Your task to perform on an android device: change notifications settings Image 0: 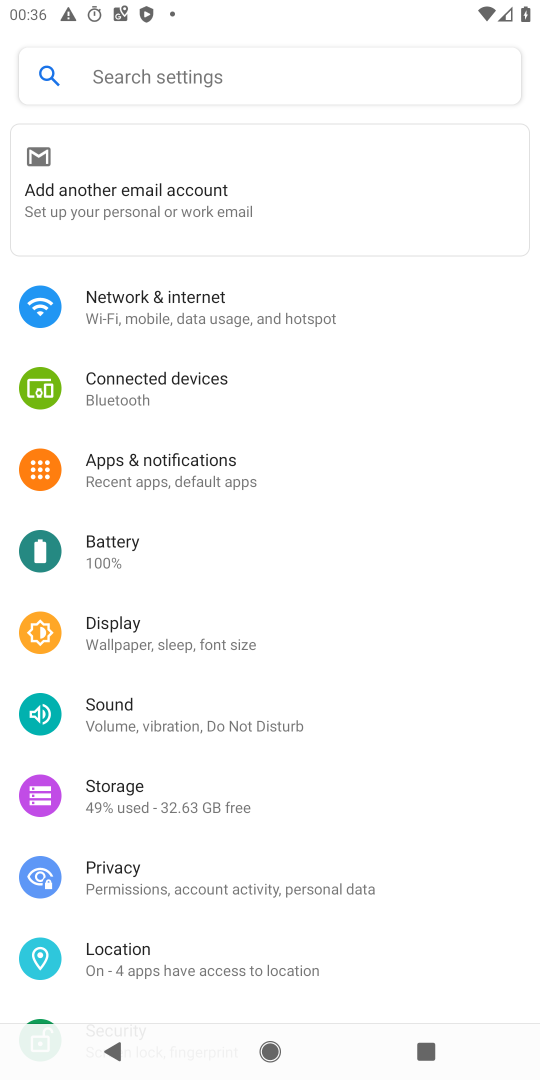
Step 0: click (121, 453)
Your task to perform on an android device: change notifications settings Image 1: 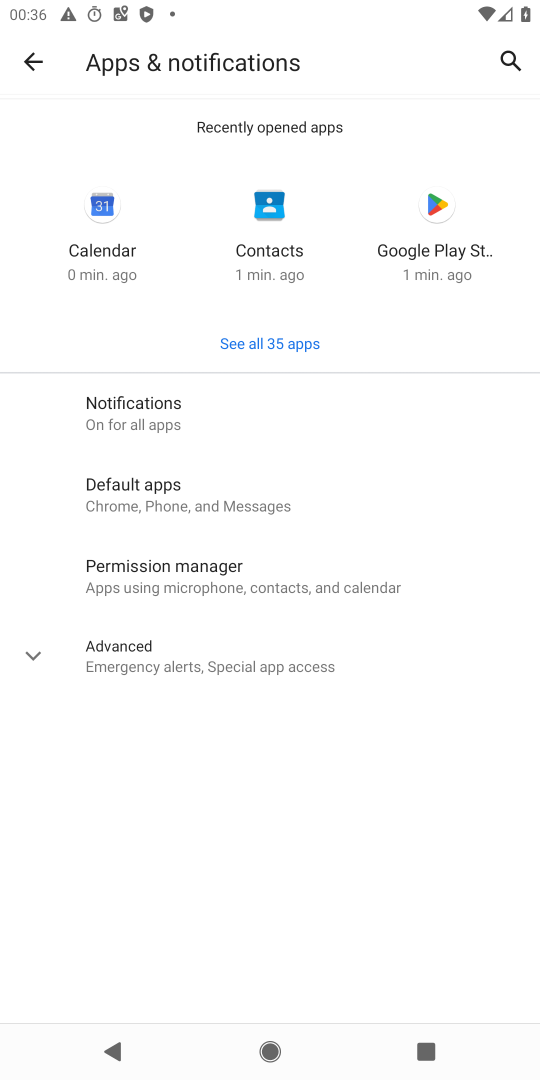
Step 1: click (216, 409)
Your task to perform on an android device: change notifications settings Image 2: 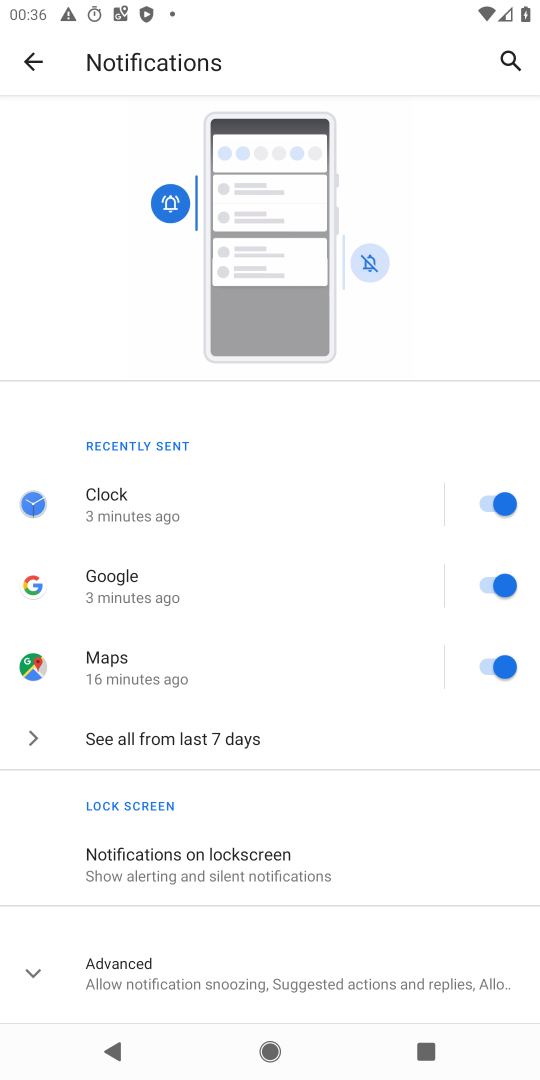
Step 2: click (294, 742)
Your task to perform on an android device: change notifications settings Image 3: 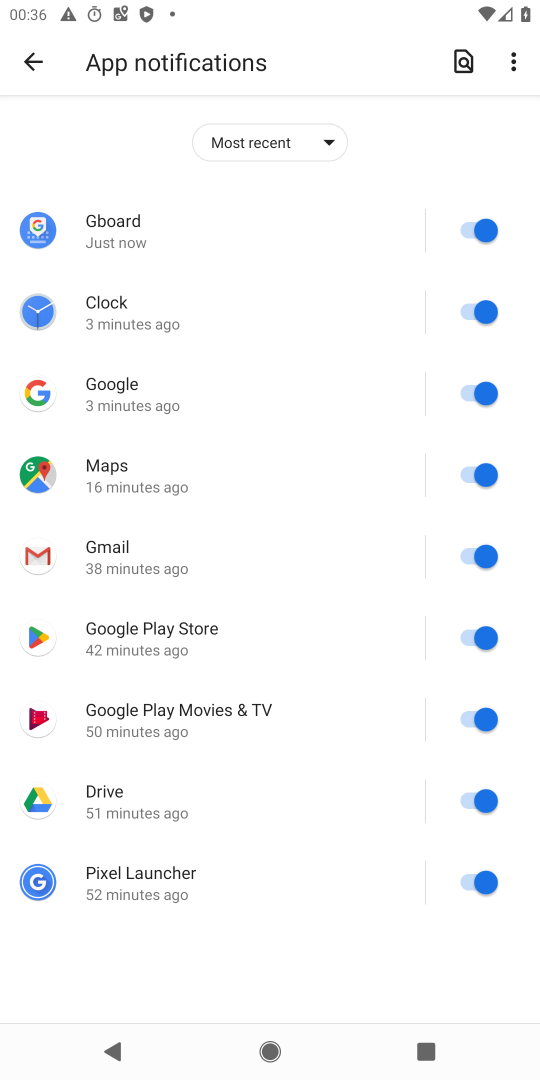
Step 3: click (479, 242)
Your task to perform on an android device: change notifications settings Image 4: 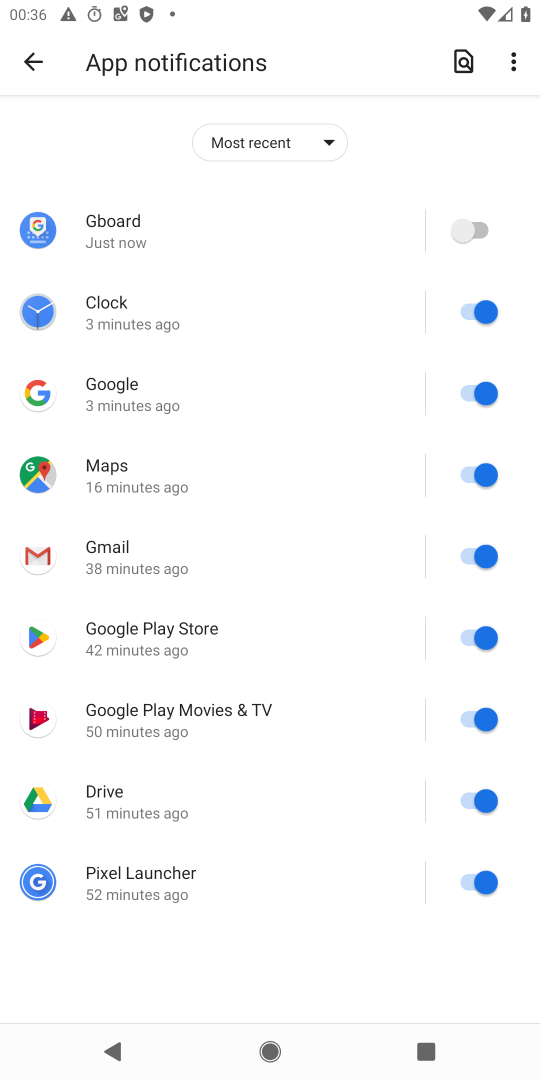
Step 4: click (483, 305)
Your task to perform on an android device: change notifications settings Image 5: 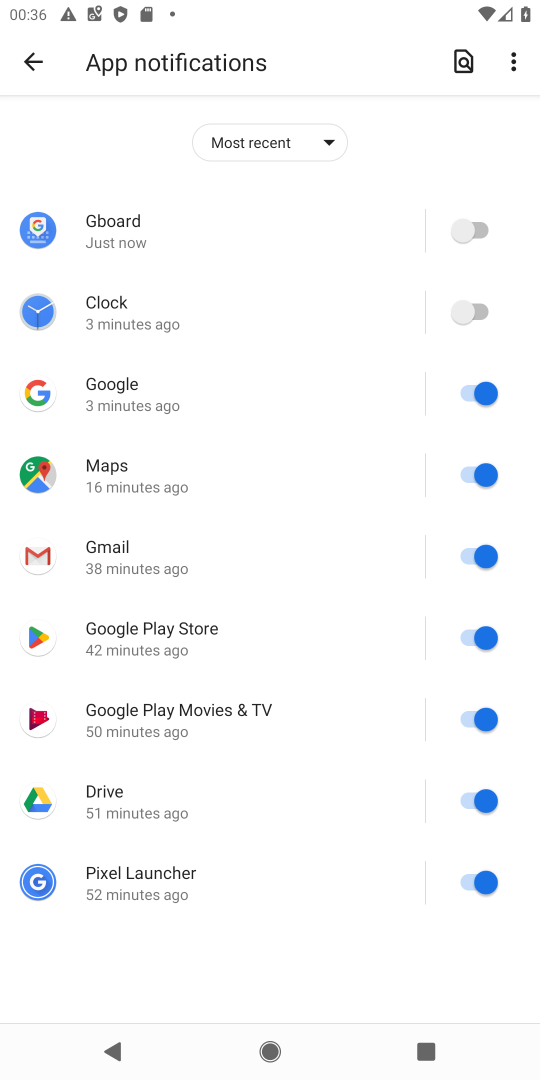
Step 5: click (473, 387)
Your task to perform on an android device: change notifications settings Image 6: 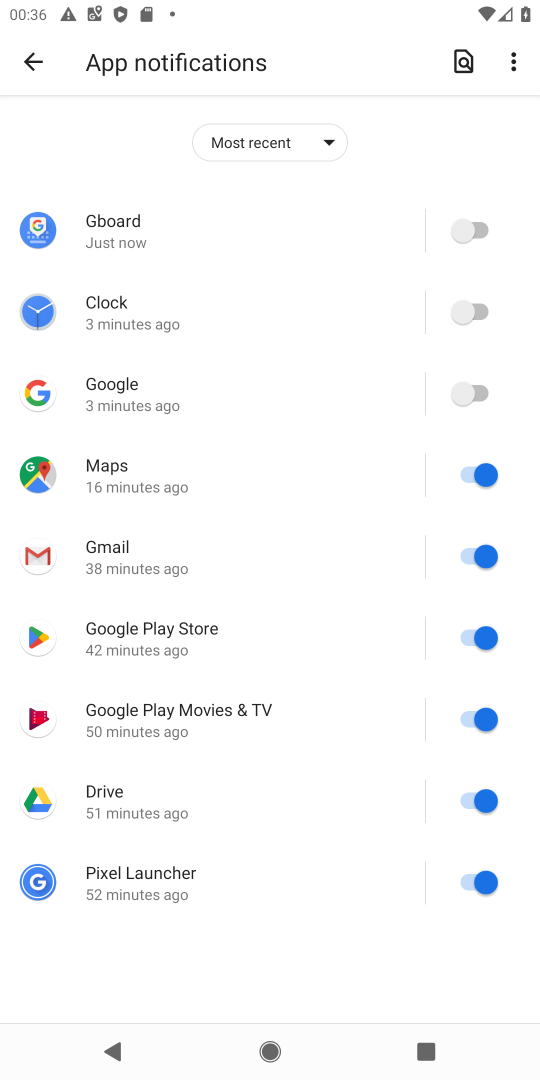
Step 6: click (474, 468)
Your task to perform on an android device: change notifications settings Image 7: 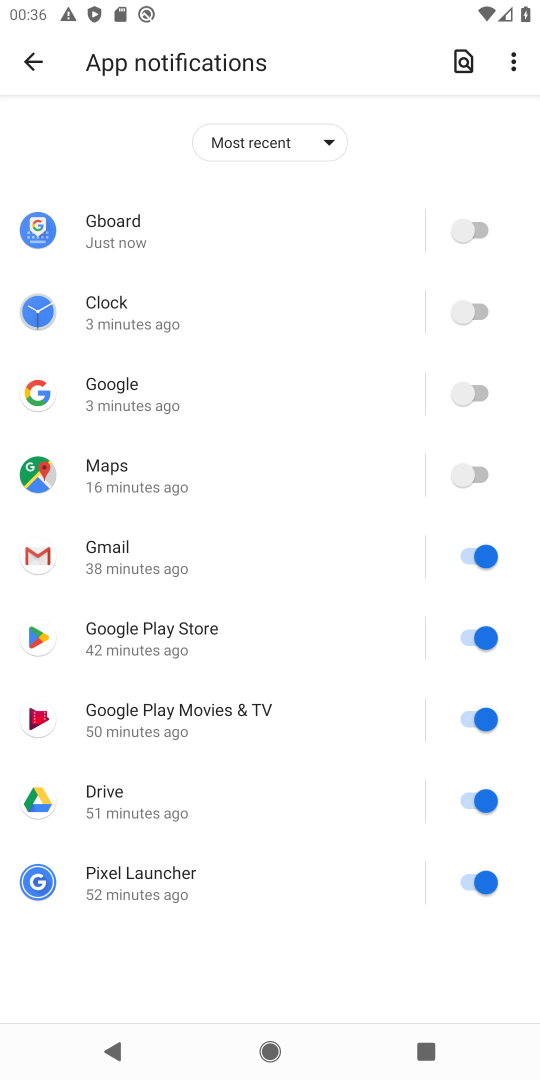
Step 7: click (481, 560)
Your task to perform on an android device: change notifications settings Image 8: 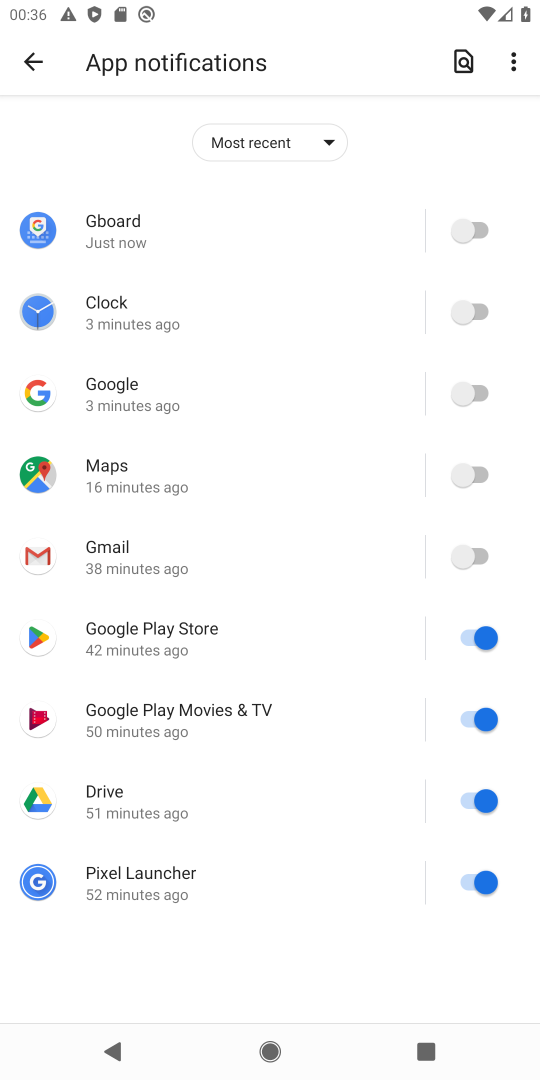
Step 8: click (475, 629)
Your task to perform on an android device: change notifications settings Image 9: 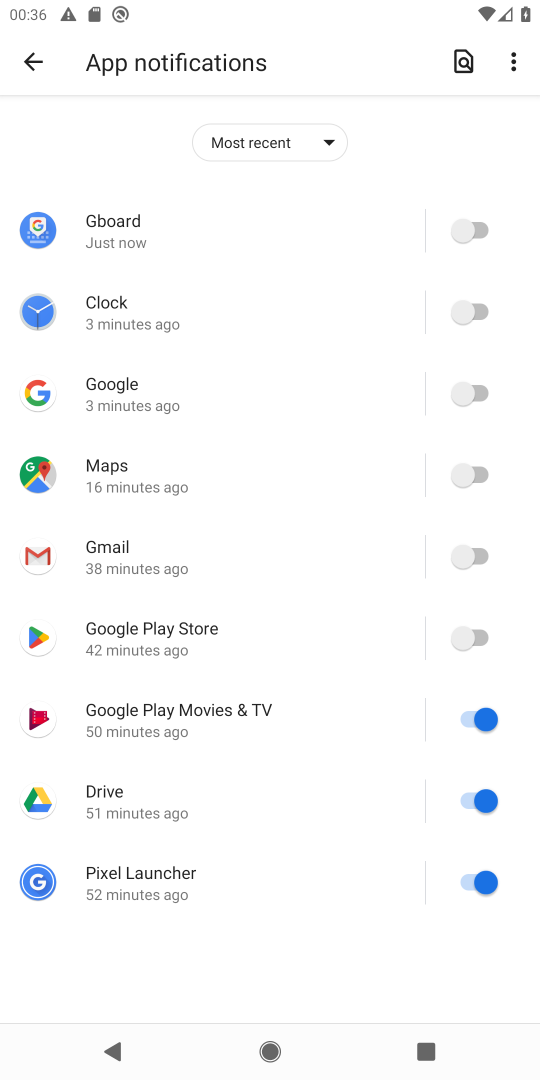
Step 9: click (484, 709)
Your task to perform on an android device: change notifications settings Image 10: 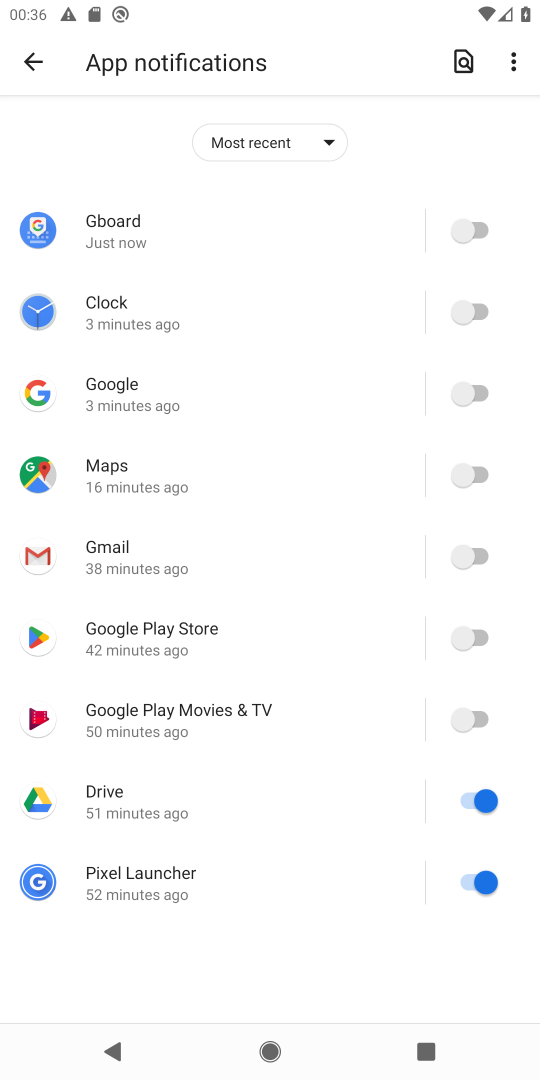
Step 10: click (487, 780)
Your task to perform on an android device: change notifications settings Image 11: 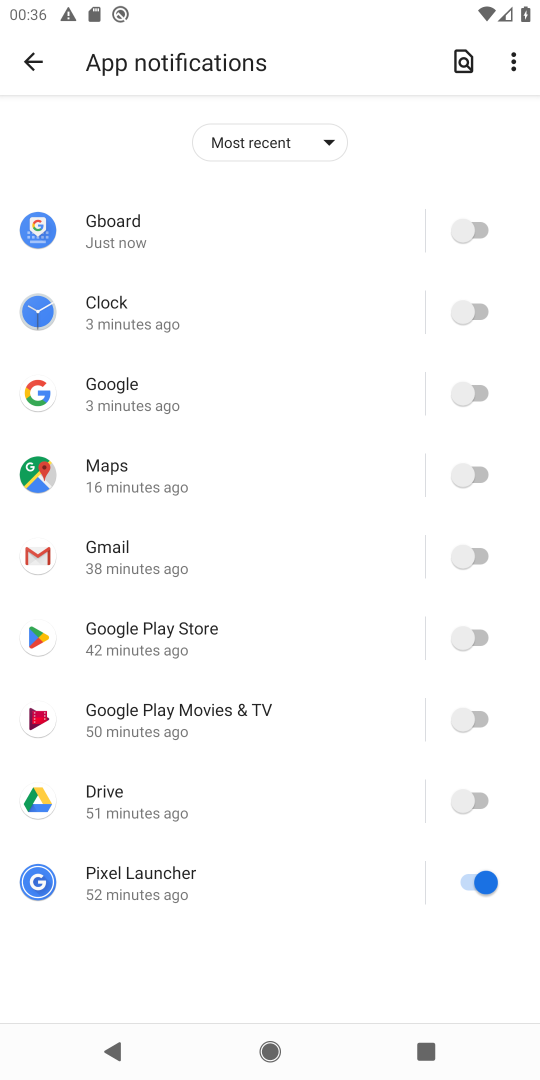
Step 11: click (471, 886)
Your task to perform on an android device: change notifications settings Image 12: 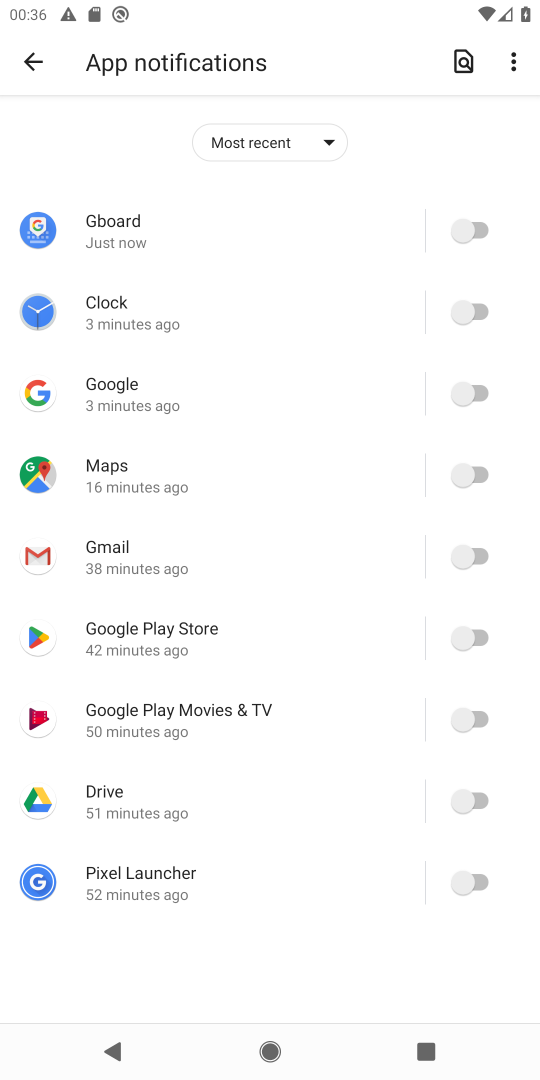
Step 12: click (39, 54)
Your task to perform on an android device: change notifications settings Image 13: 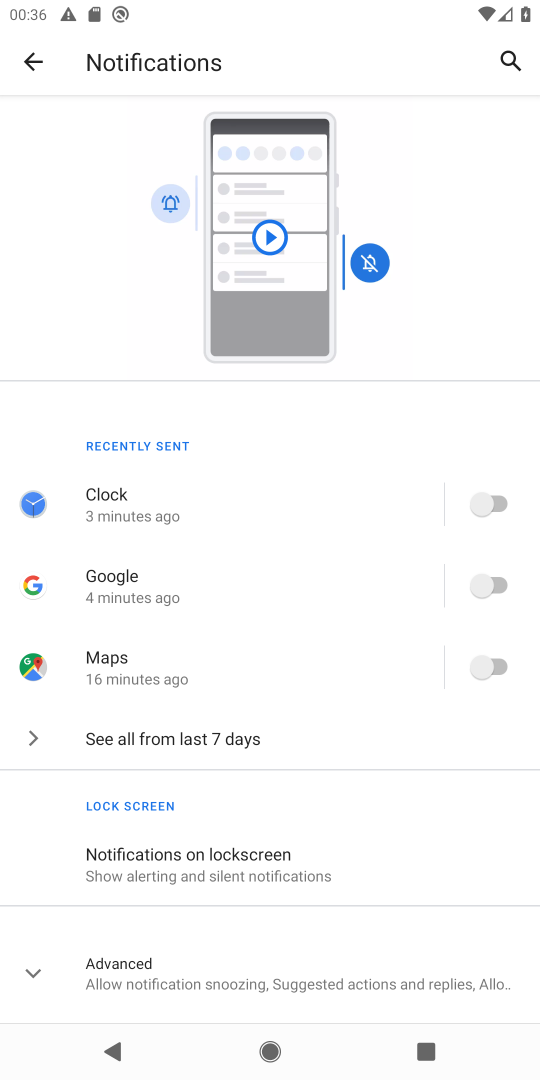
Step 13: click (156, 865)
Your task to perform on an android device: change notifications settings Image 14: 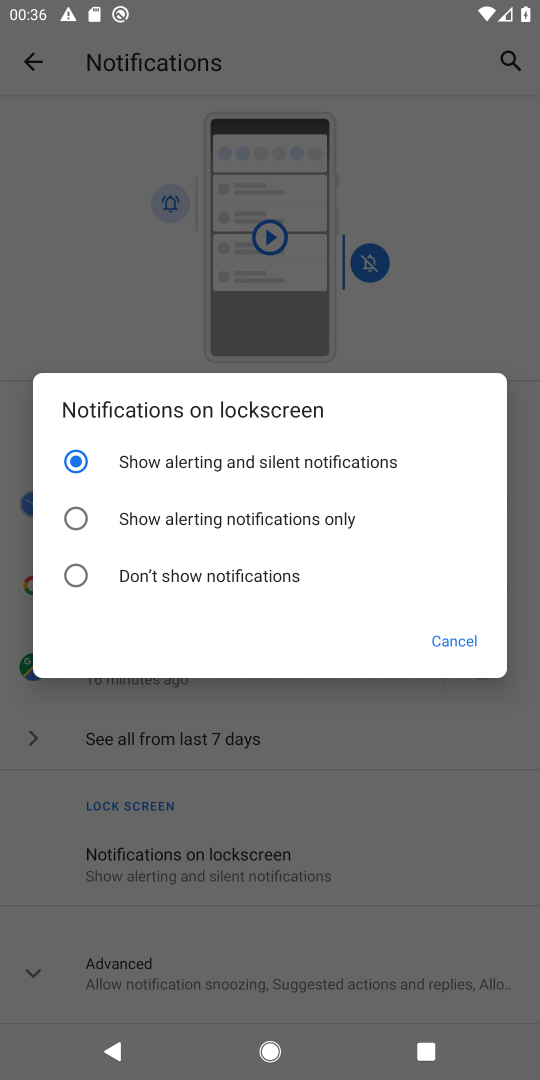
Step 14: click (242, 510)
Your task to perform on an android device: change notifications settings Image 15: 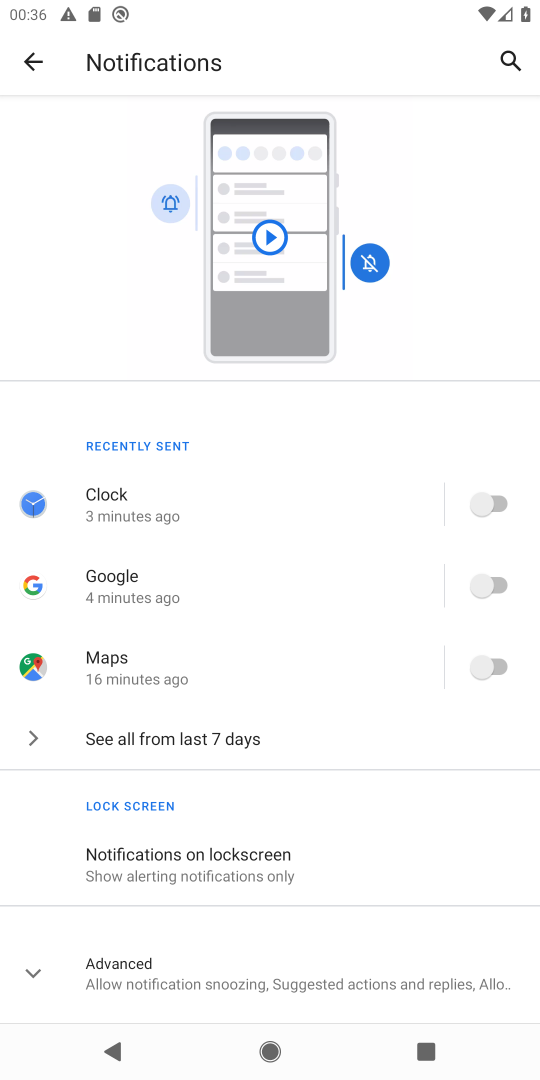
Step 15: click (214, 962)
Your task to perform on an android device: change notifications settings Image 16: 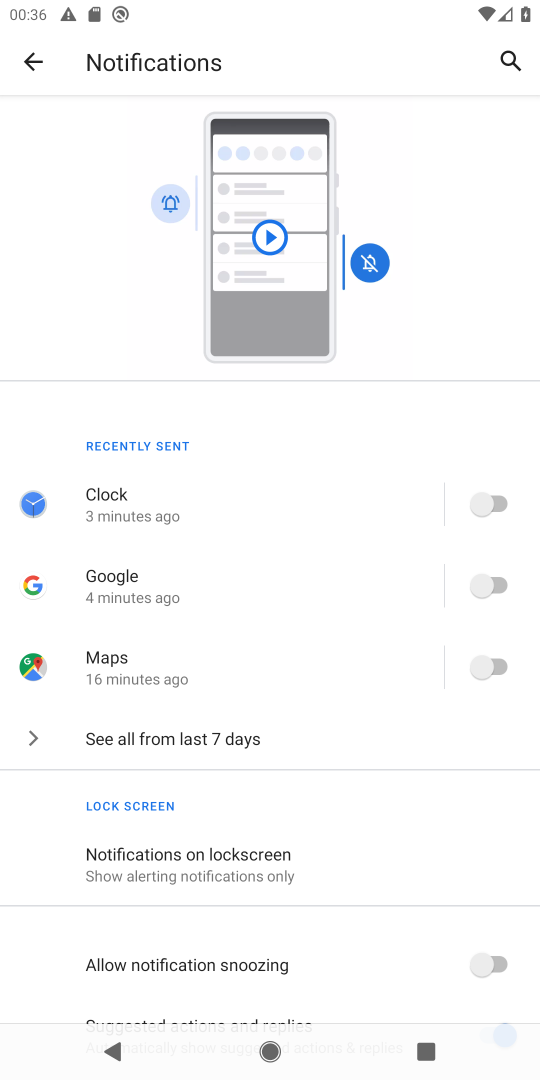
Step 16: drag from (214, 962) to (172, 285)
Your task to perform on an android device: change notifications settings Image 17: 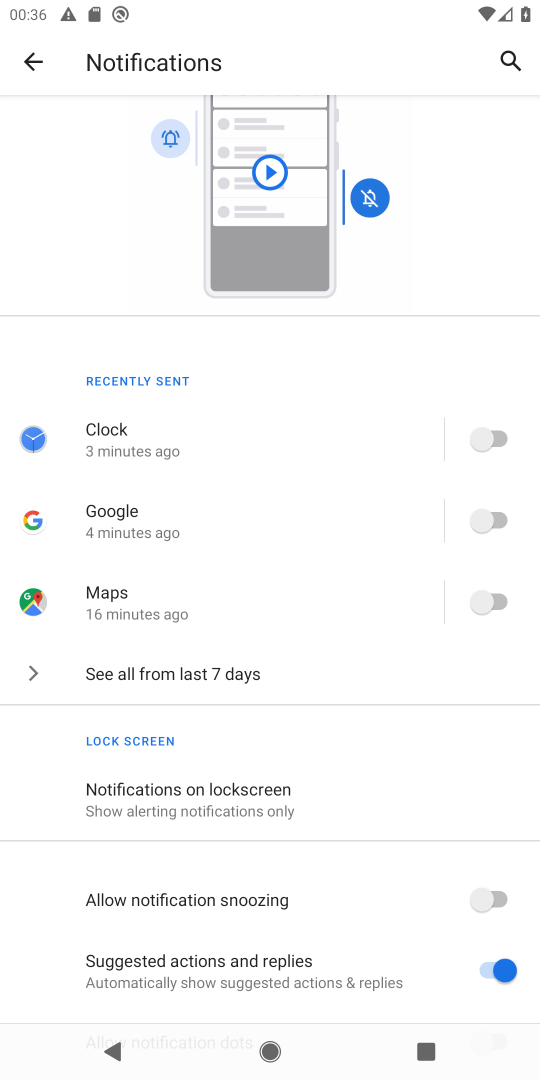
Step 17: drag from (342, 859) to (322, 272)
Your task to perform on an android device: change notifications settings Image 18: 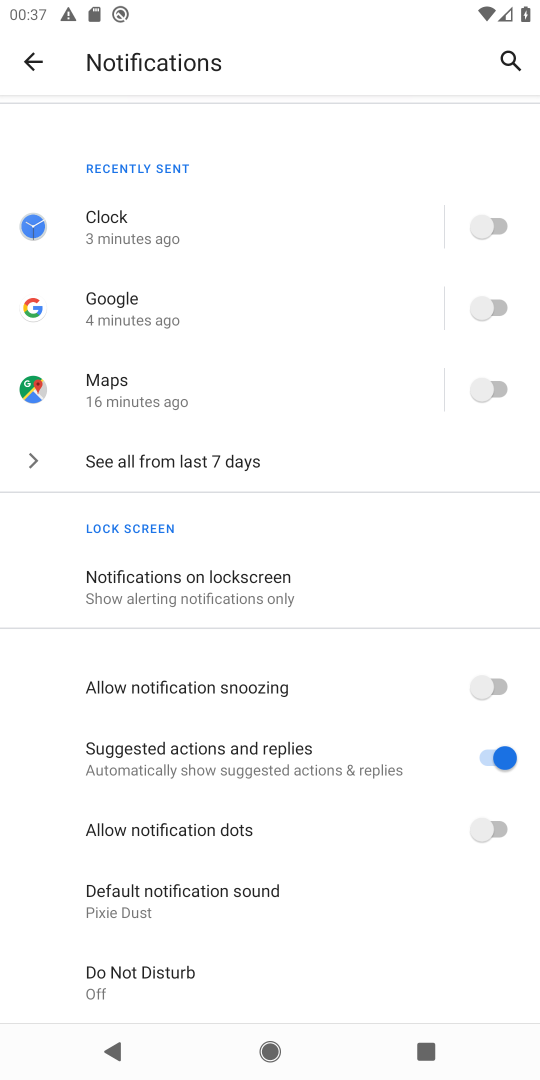
Step 18: click (478, 686)
Your task to perform on an android device: change notifications settings Image 19: 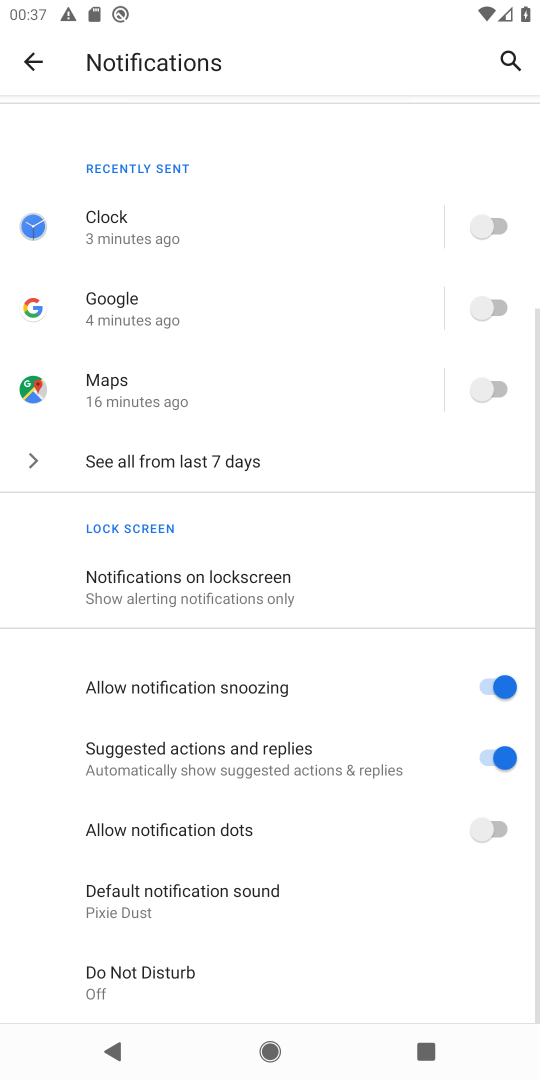
Step 19: click (501, 763)
Your task to perform on an android device: change notifications settings Image 20: 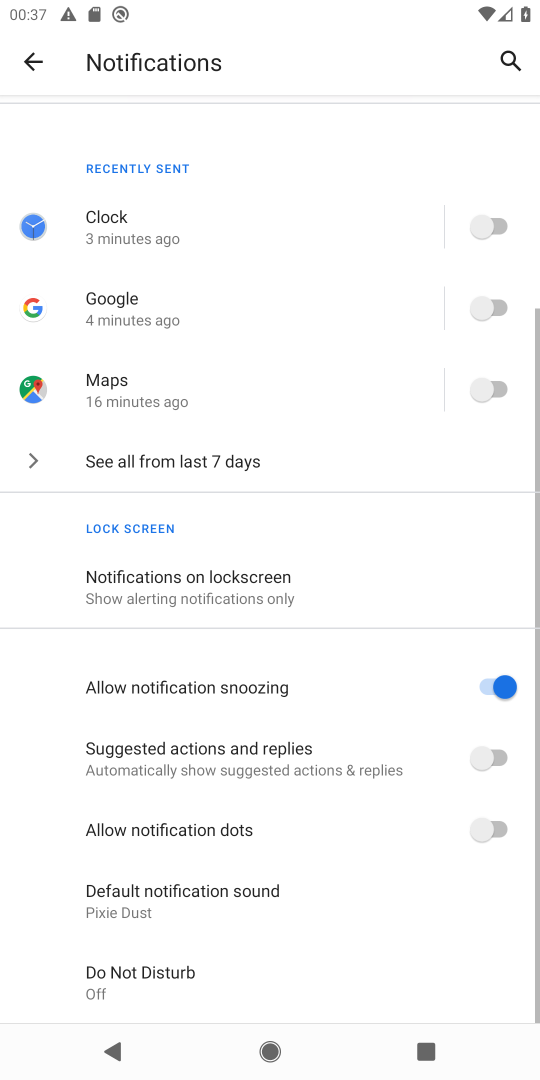
Step 20: click (490, 827)
Your task to perform on an android device: change notifications settings Image 21: 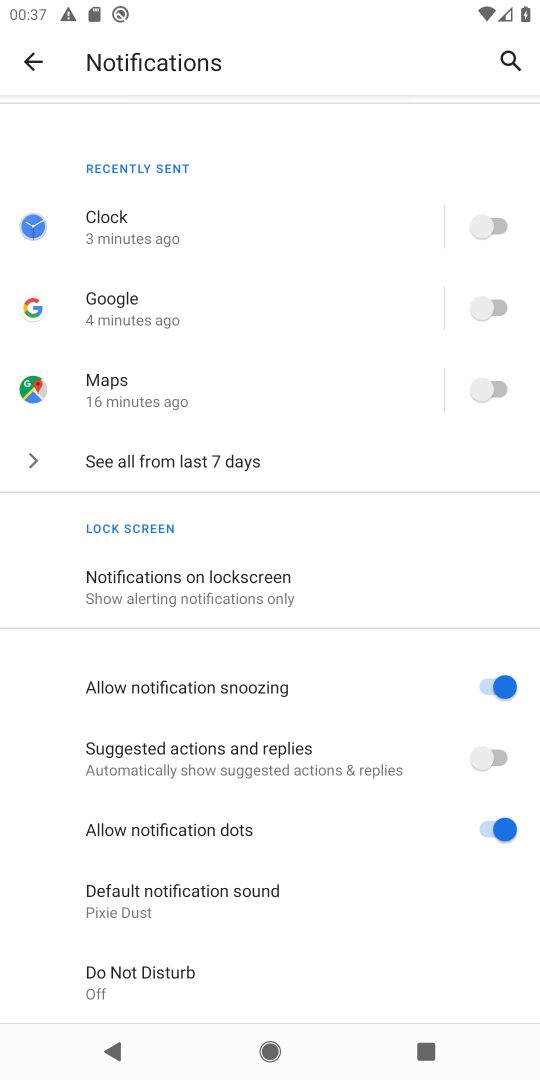
Step 21: task complete